Your task to perform on an android device: Open Chrome and go to the settings page Image 0: 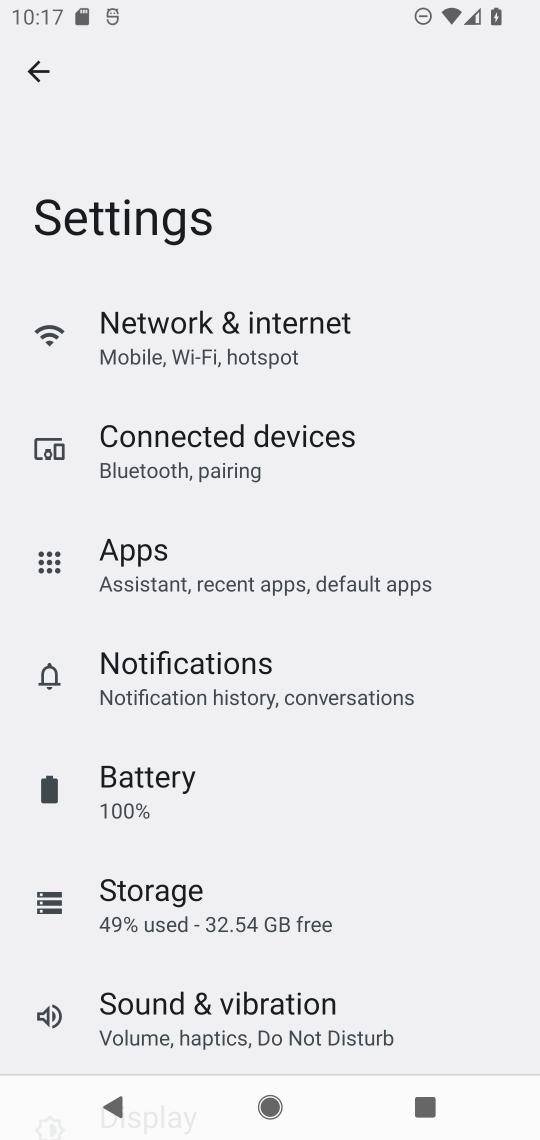
Step 0: press home button
Your task to perform on an android device: Open Chrome and go to the settings page Image 1: 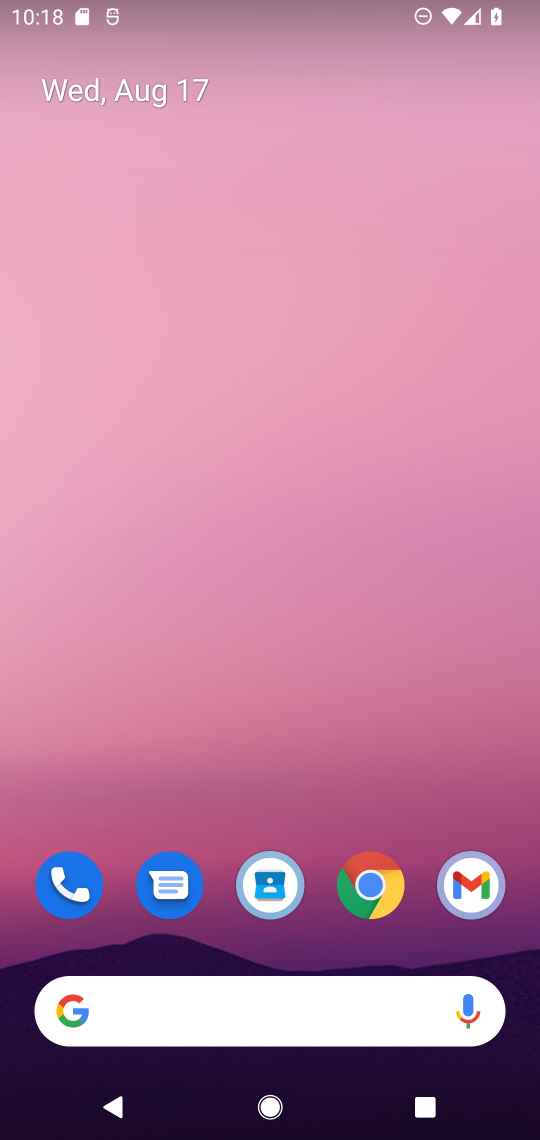
Step 1: click (363, 884)
Your task to perform on an android device: Open Chrome and go to the settings page Image 2: 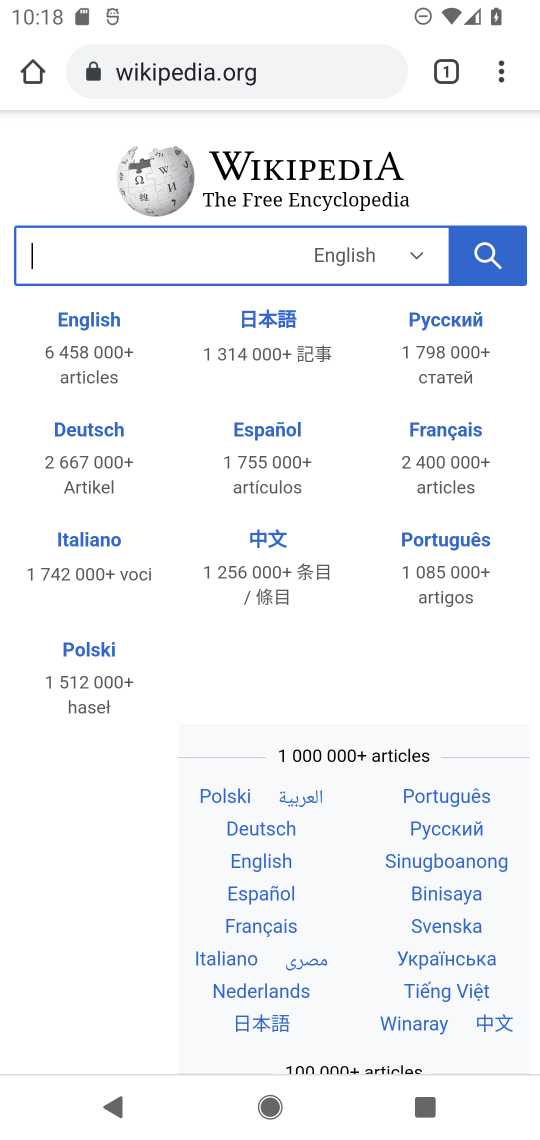
Step 2: click (492, 78)
Your task to perform on an android device: Open Chrome and go to the settings page Image 3: 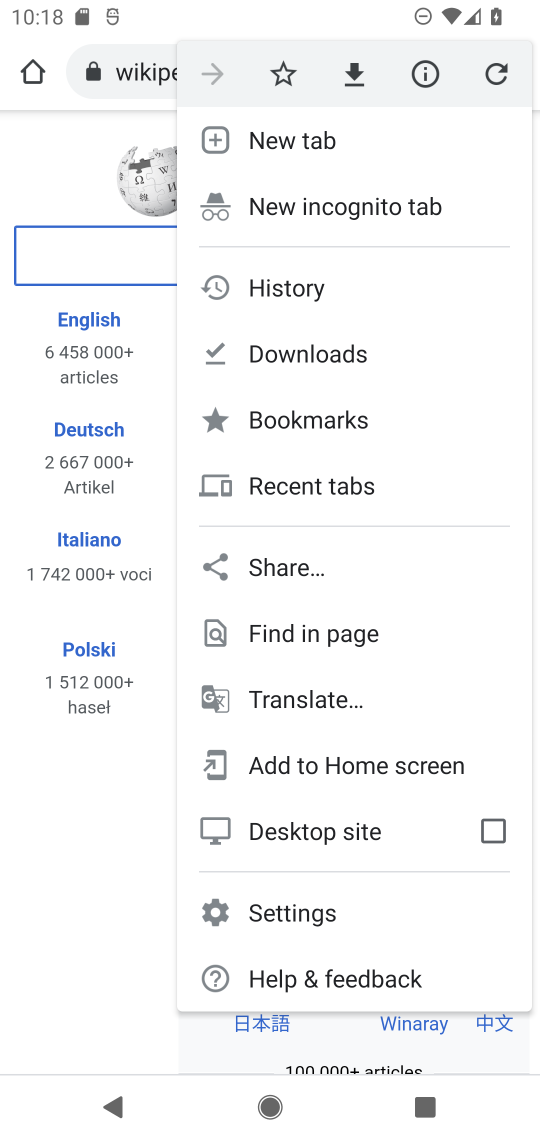
Step 3: click (276, 913)
Your task to perform on an android device: Open Chrome and go to the settings page Image 4: 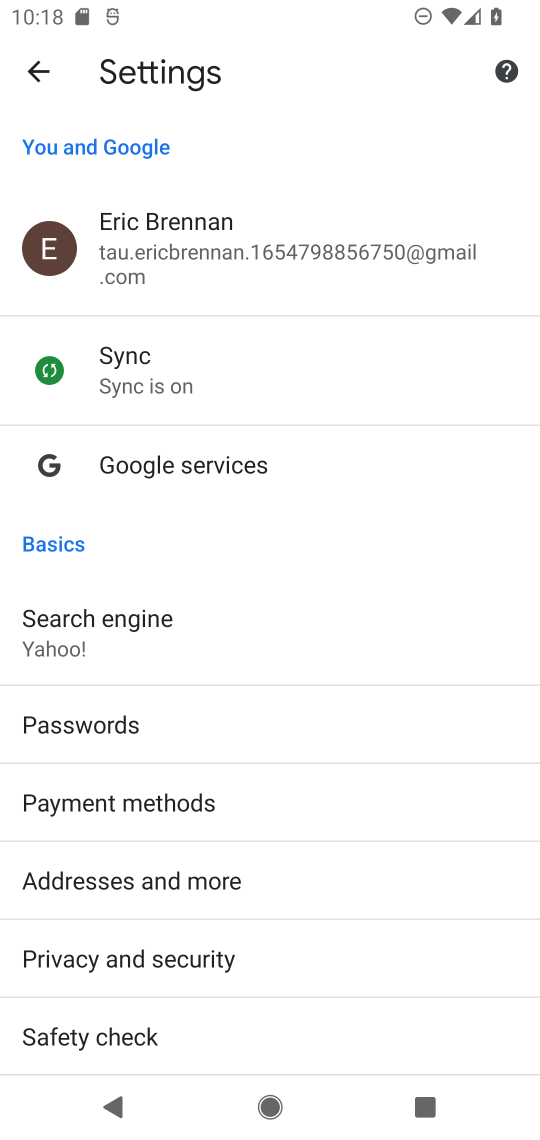
Step 4: task complete